Your task to perform on an android device: Show the shopping cart on ebay. Add "bose quietcomfort 35" to the cart on ebay Image 0: 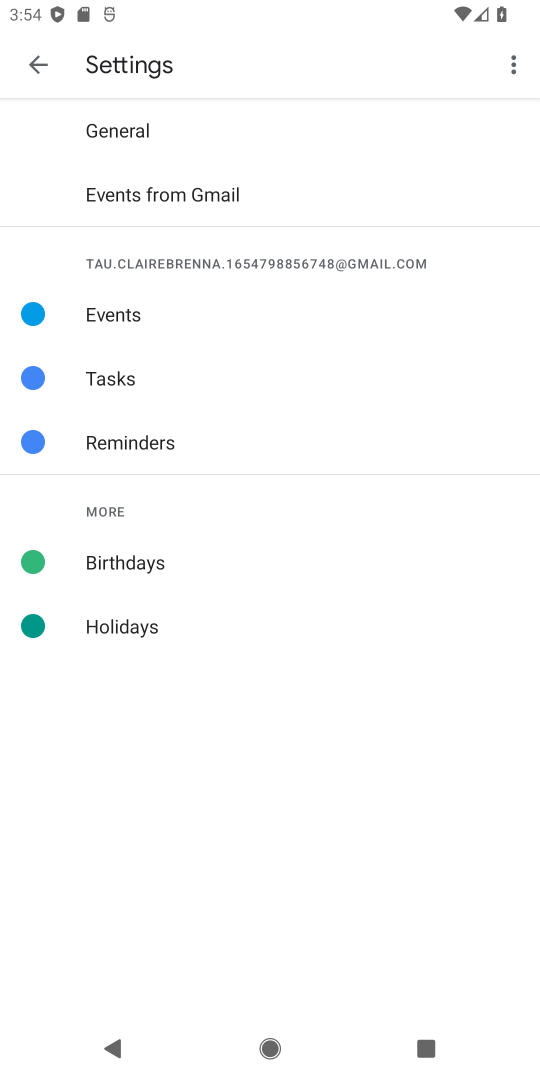
Step 0: press home button
Your task to perform on an android device: Show the shopping cart on ebay. Add "bose quietcomfort 35" to the cart on ebay Image 1: 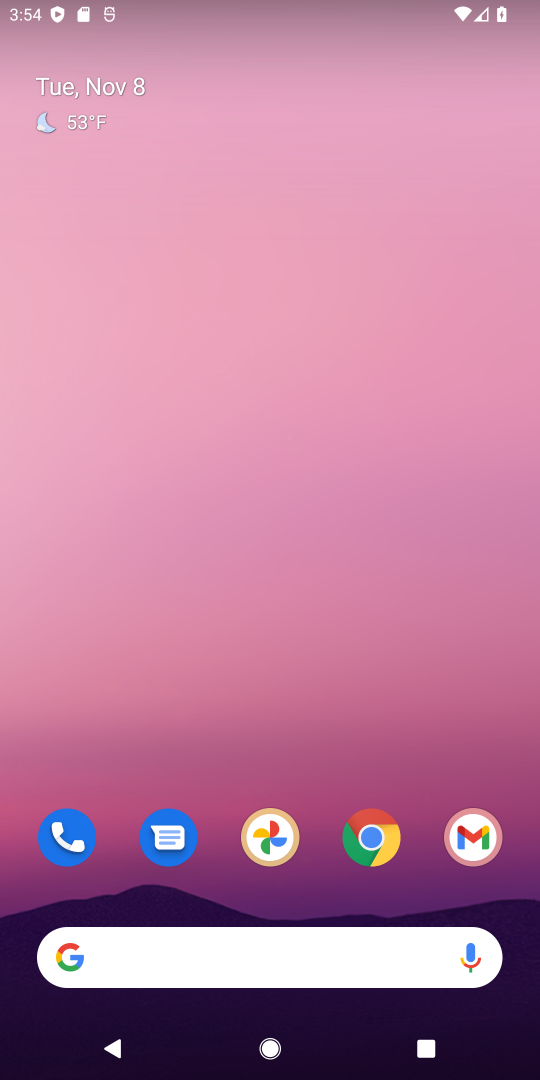
Step 1: click (370, 835)
Your task to perform on an android device: Show the shopping cart on ebay. Add "bose quietcomfort 35" to the cart on ebay Image 2: 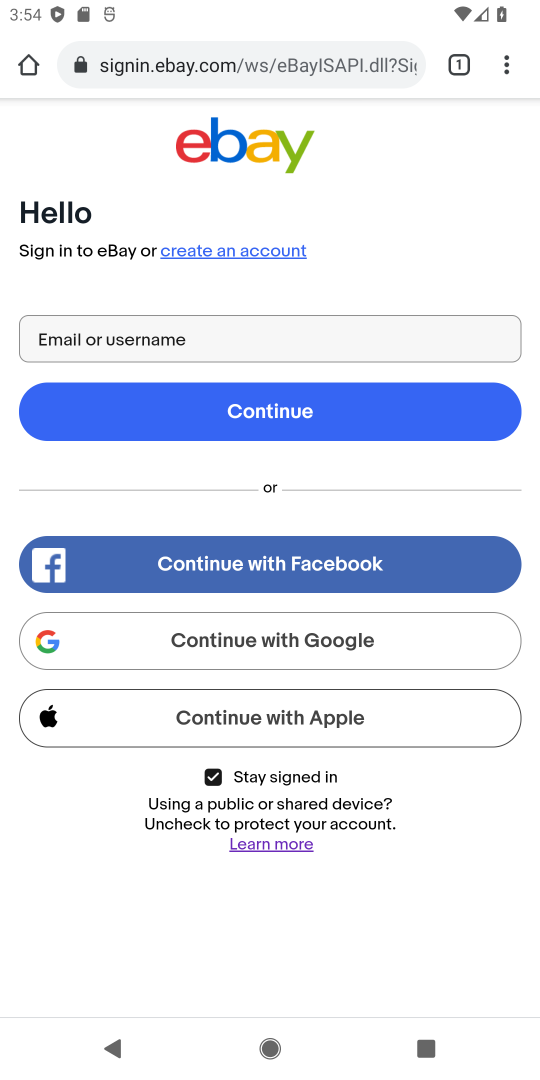
Step 2: click (197, 71)
Your task to perform on an android device: Show the shopping cart on ebay. Add "bose quietcomfort 35" to the cart on ebay Image 3: 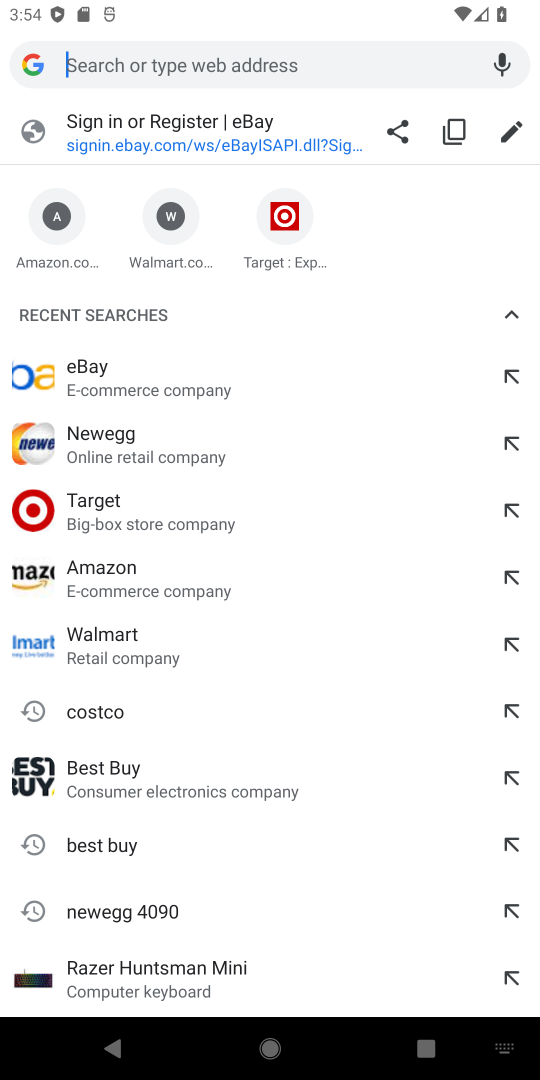
Step 3: type "ebay"
Your task to perform on an android device: Show the shopping cart on ebay. Add "bose quietcomfort 35" to the cart on ebay Image 4: 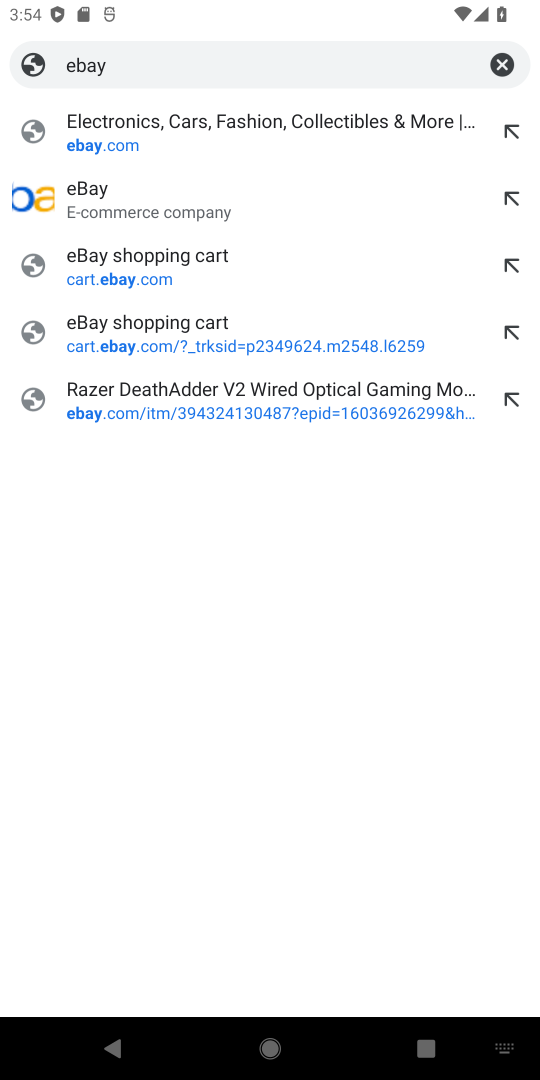
Step 4: click (54, 190)
Your task to perform on an android device: Show the shopping cart on ebay. Add "bose quietcomfort 35" to the cart on ebay Image 5: 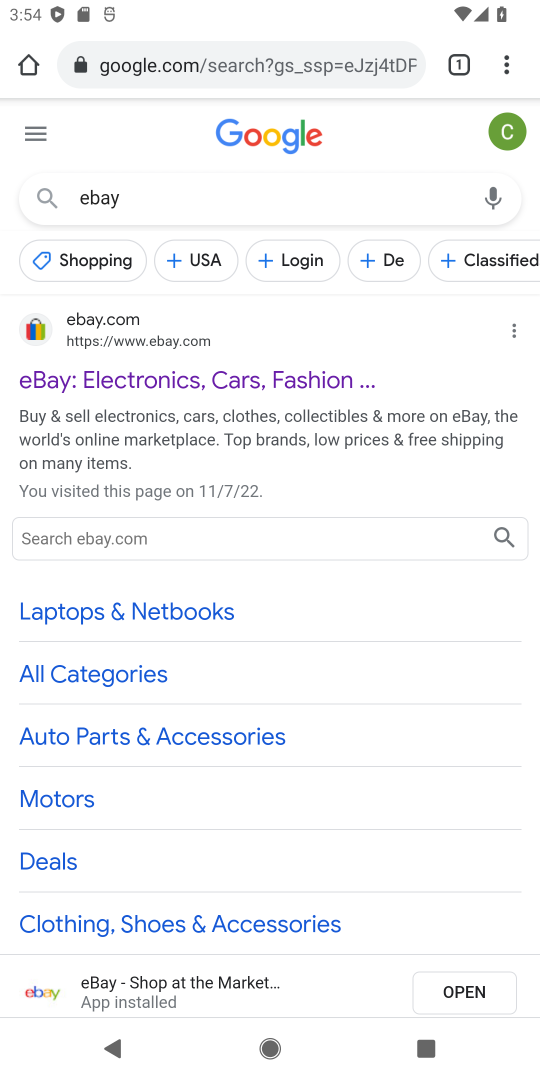
Step 5: click (110, 382)
Your task to perform on an android device: Show the shopping cart on ebay. Add "bose quietcomfort 35" to the cart on ebay Image 6: 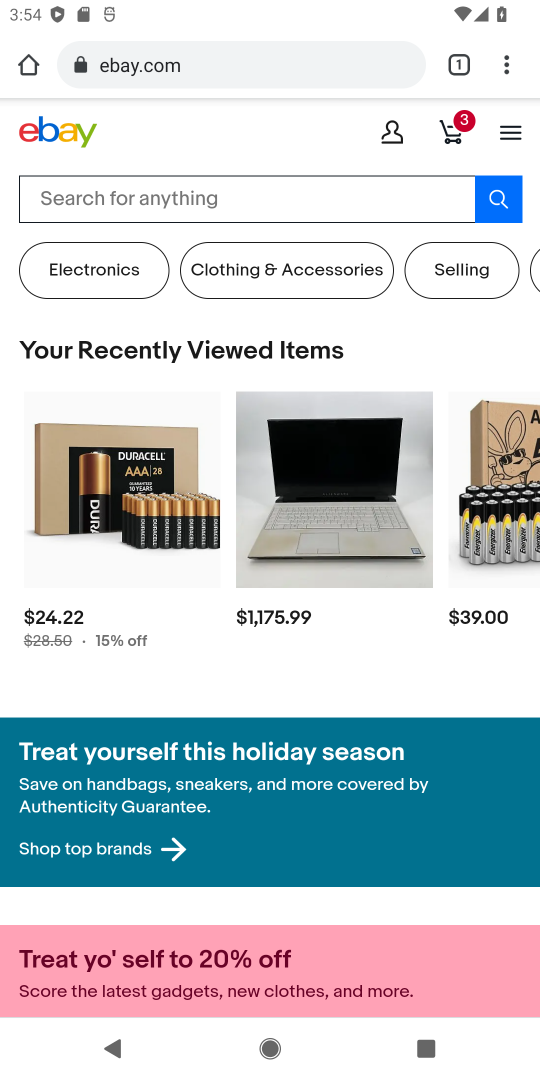
Step 6: drag from (184, 727) to (221, 1019)
Your task to perform on an android device: Show the shopping cart on ebay. Add "bose quietcomfort 35" to the cart on ebay Image 7: 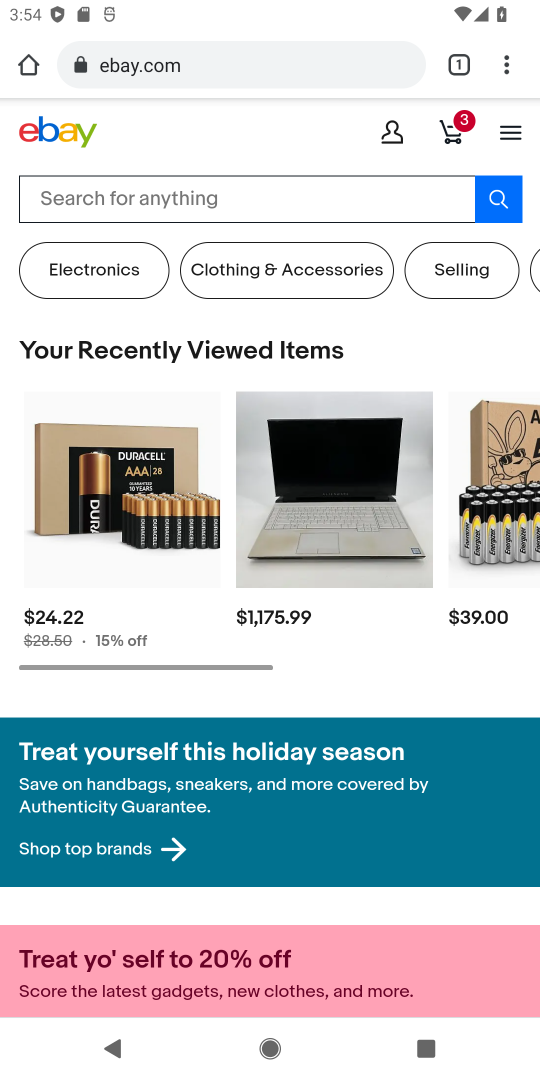
Step 7: click (221, 198)
Your task to perform on an android device: Show the shopping cart on ebay. Add "bose quietcomfort 35" to the cart on ebay Image 8: 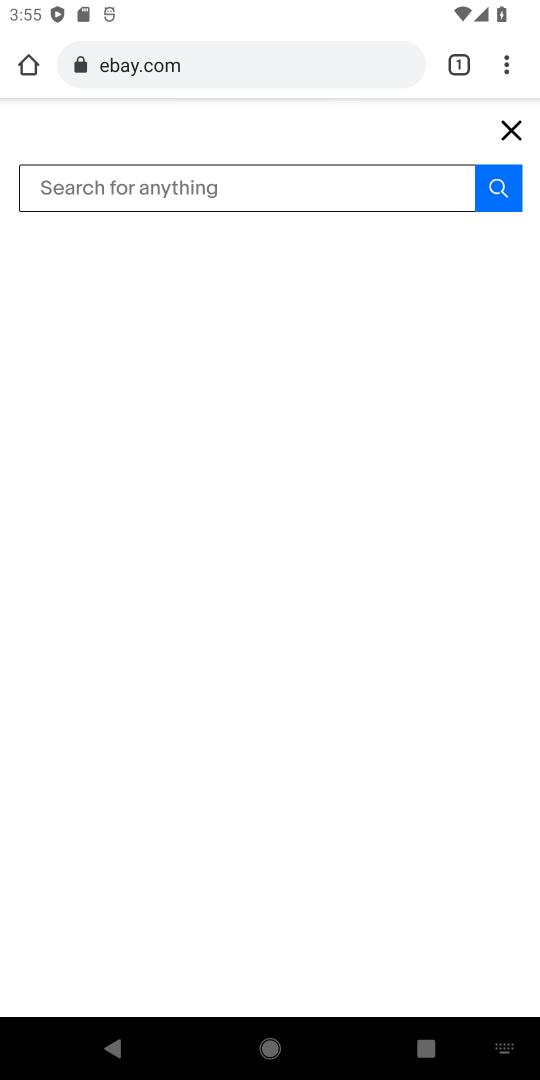
Step 8: type "bose quietcomfort 35"
Your task to perform on an android device: Show the shopping cart on ebay. Add "bose quietcomfort 35" to the cart on ebay Image 9: 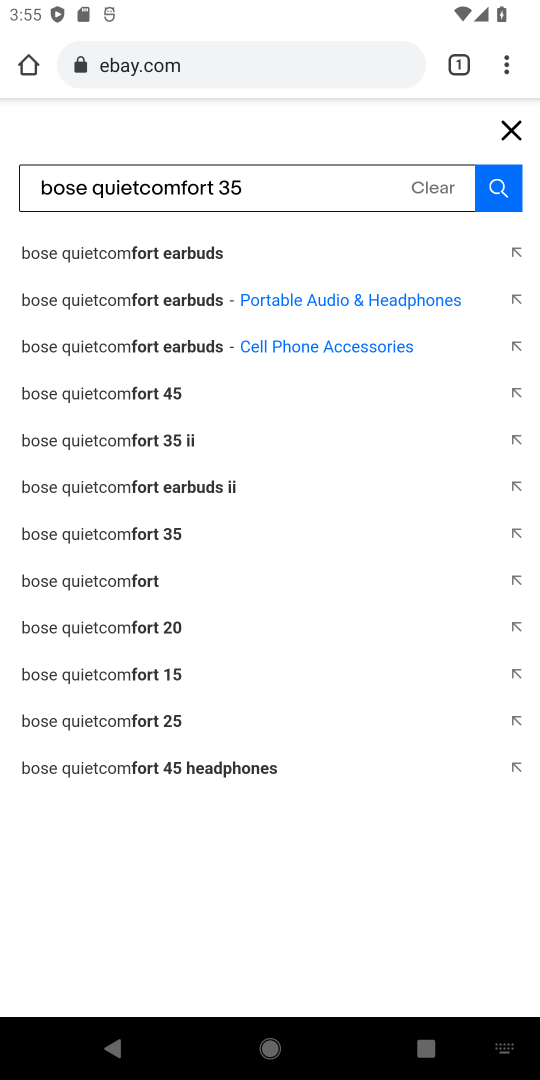
Step 9: click (109, 726)
Your task to perform on an android device: Show the shopping cart on ebay. Add "bose quietcomfort 35" to the cart on ebay Image 10: 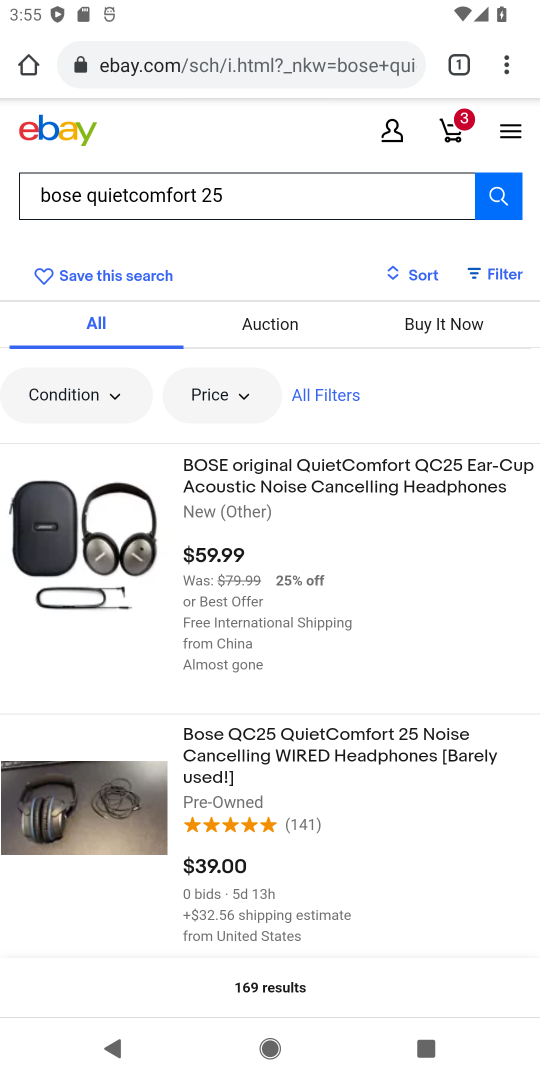
Step 10: click (340, 740)
Your task to perform on an android device: Show the shopping cart on ebay. Add "bose quietcomfort 35" to the cart on ebay Image 11: 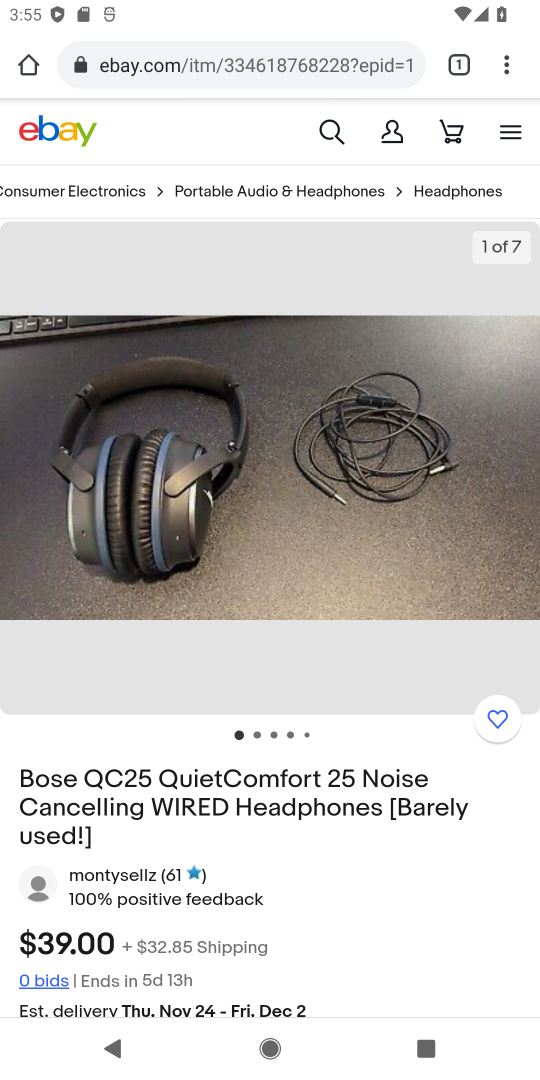
Step 11: drag from (300, 918) to (326, 217)
Your task to perform on an android device: Show the shopping cart on ebay. Add "bose quietcomfort 35" to the cart on ebay Image 12: 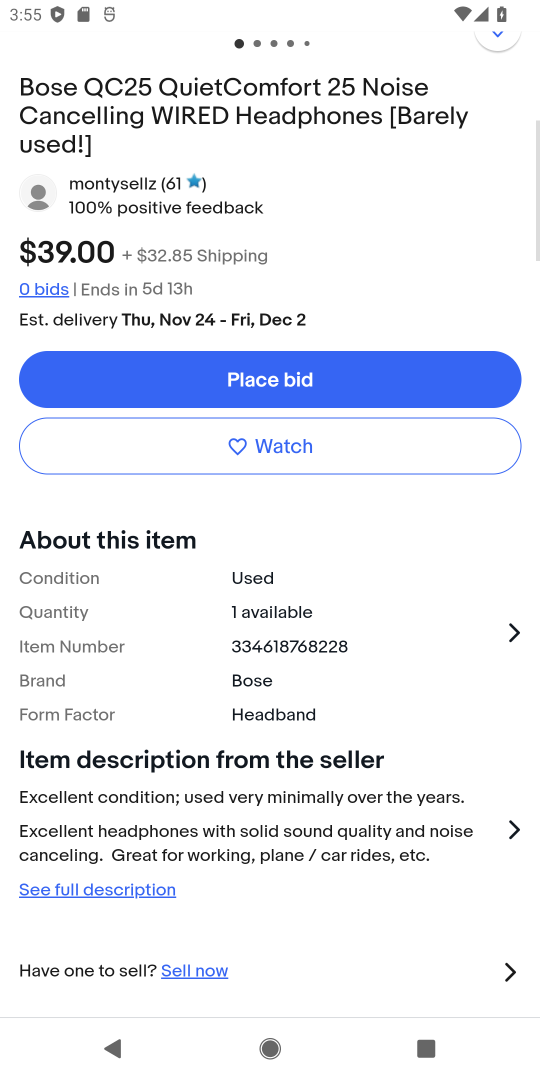
Step 12: drag from (324, 783) to (392, 206)
Your task to perform on an android device: Show the shopping cart on ebay. Add "bose quietcomfort 35" to the cart on ebay Image 13: 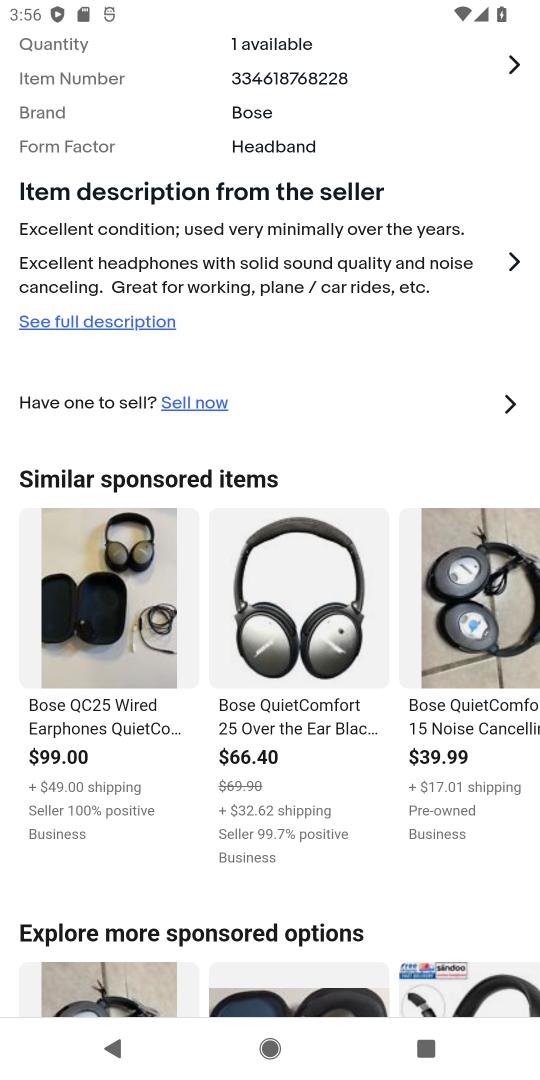
Step 13: drag from (214, 869) to (291, 179)
Your task to perform on an android device: Show the shopping cart on ebay. Add "bose quietcomfort 35" to the cart on ebay Image 14: 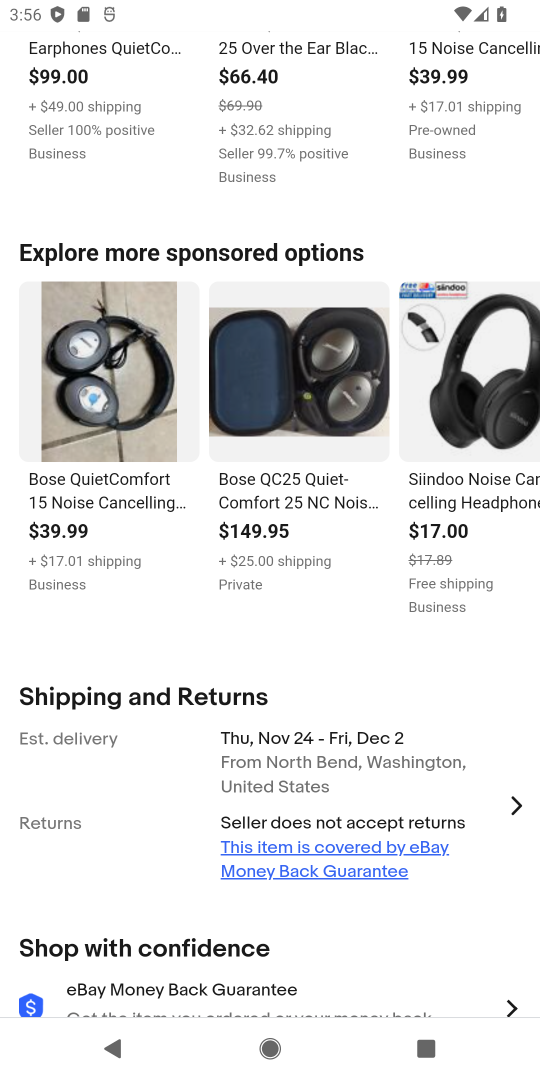
Step 14: drag from (229, 805) to (224, 369)
Your task to perform on an android device: Show the shopping cart on ebay. Add "bose quietcomfort 35" to the cart on ebay Image 15: 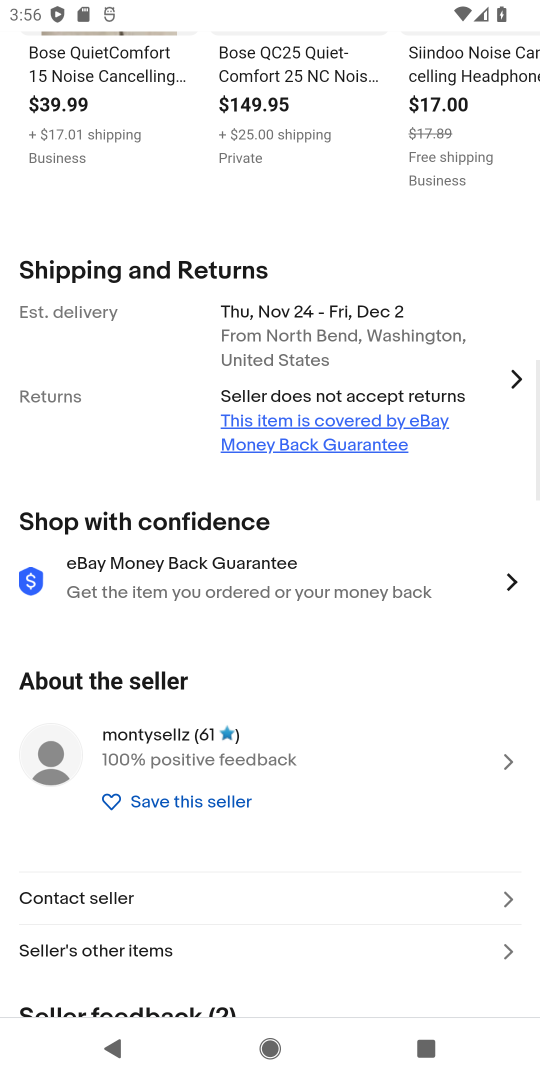
Step 15: drag from (223, 268) to (242, 894)
Your task to perform on an android device: Show the shopping cart on ebay. Add "bose quietcomfort 35" to the cart on ebay Image 16: 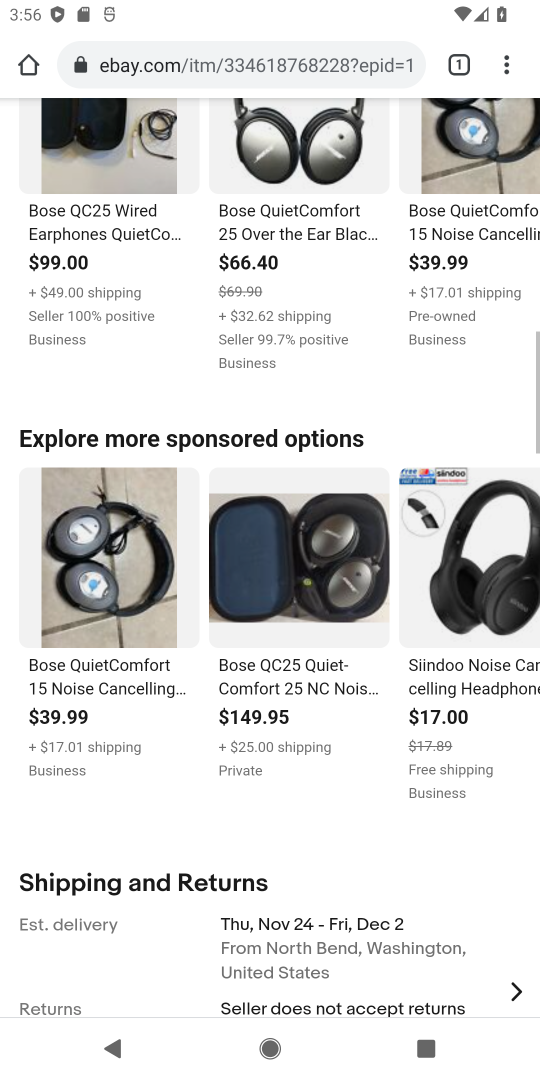
Step 16: drag from (324, 322) to (252, 884)
Your task to perform on an android device: Show the shopping cart on ebay. Add "bose quietcomfort 35" to the cart on ebay Image 17: 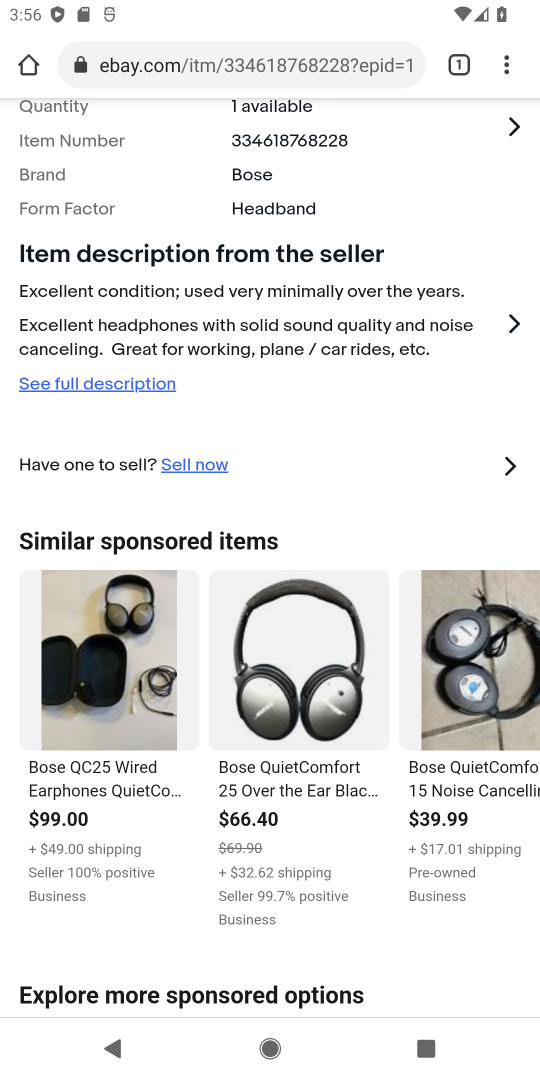
Step 17: drag from (144, 441) to (129, 849)
Your task to perform on an android device: Show the shopping cart on ebay. Add "bose quietcomfort 35" to the cart on ebay Image 18: 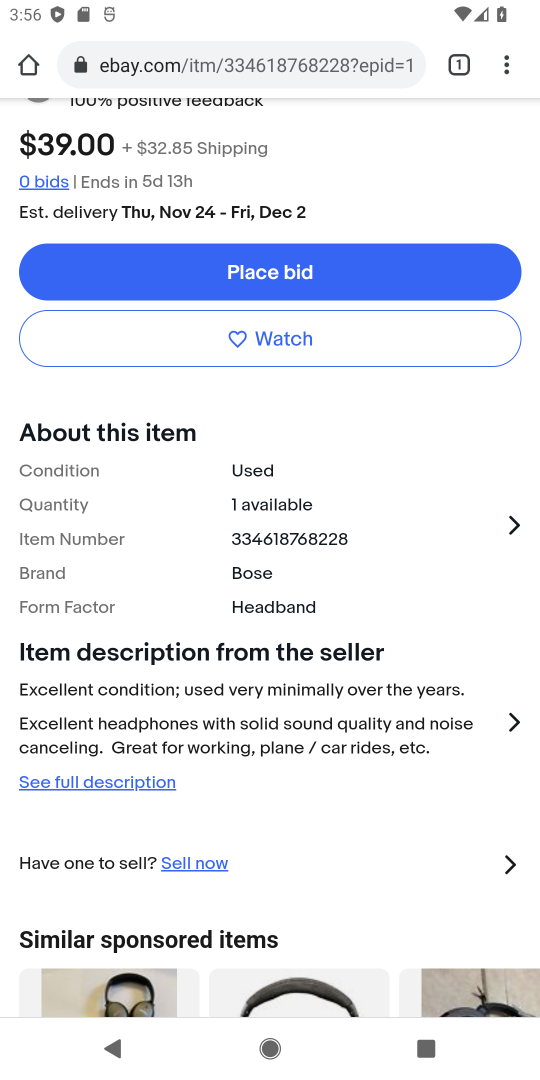
Step 18: drag from (259, 435) to (263, 958)
Your task to perform on an android device: Show the shopping cart on ebay. Add "bose quietcomfort 35" to the cart on ebay Image 19: 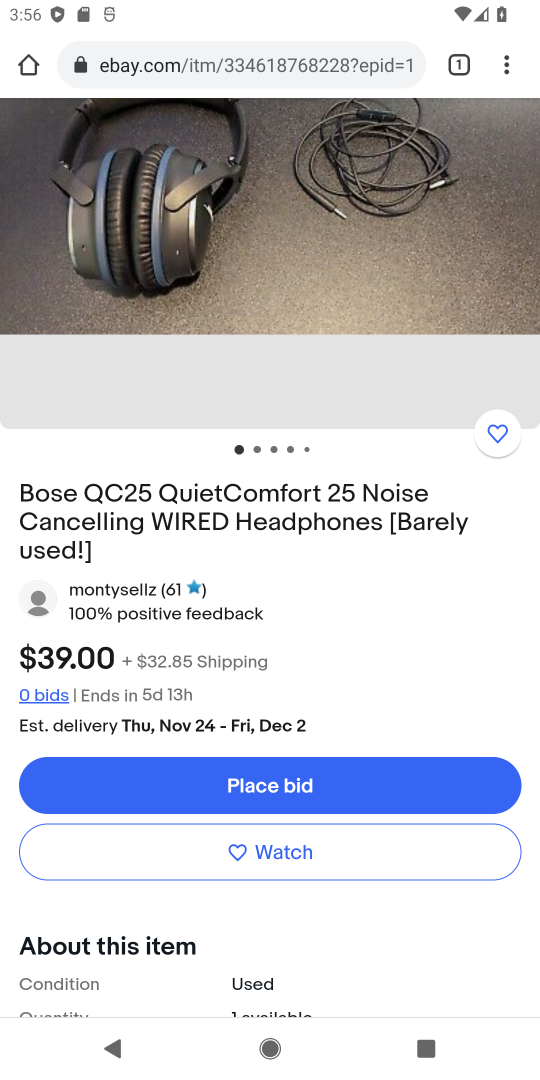
Step 19: click (293, 799)
Your task to perform on an android device: Show the shopping cart on ebay. Add "bose quietcomfort 35" to the cart on ebay Image 20: 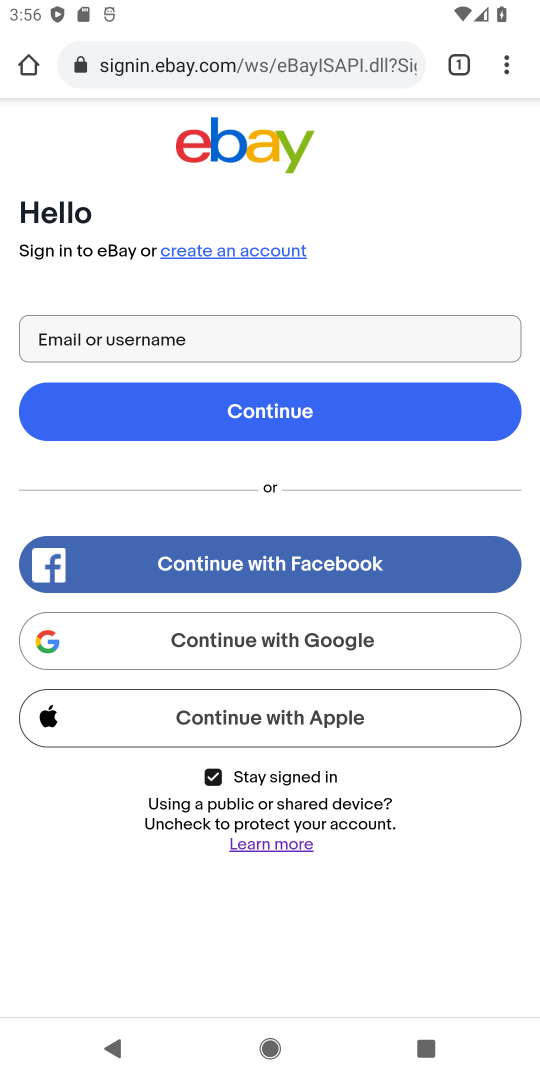
Step 20: task complete